Your task to perform on an android device: turn on bluetooth scan Image 0: 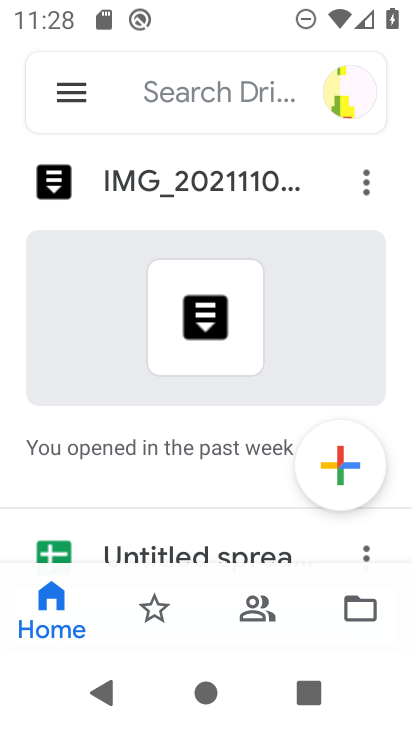
Step 0: press home button
Your task to perform on an android device: turn on bluetooth scan Image 1: 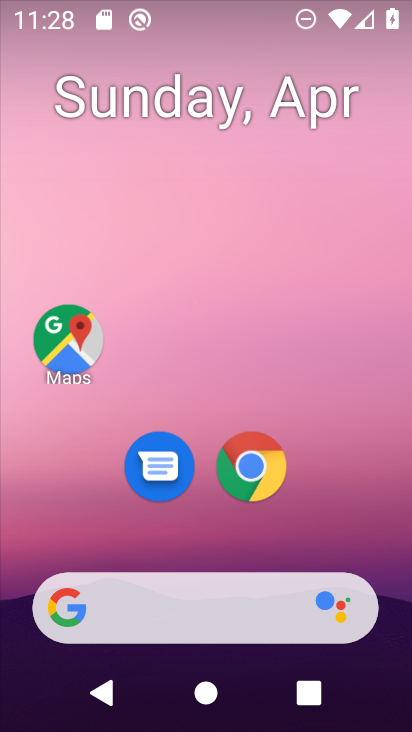
Step 1: drag from (375, 520) to (368, 79)
Your task to perform on an android device: turn on bluetooth scan Image 2: 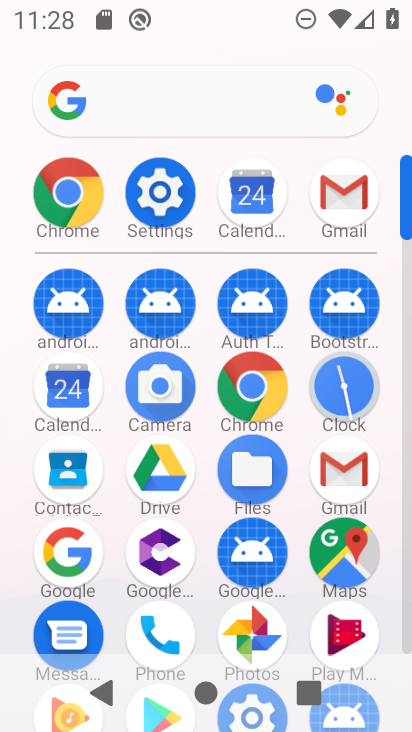
Step 2: click (171, 209)
Your task to perform on an android device: turn on bluetooth scan Image 3: 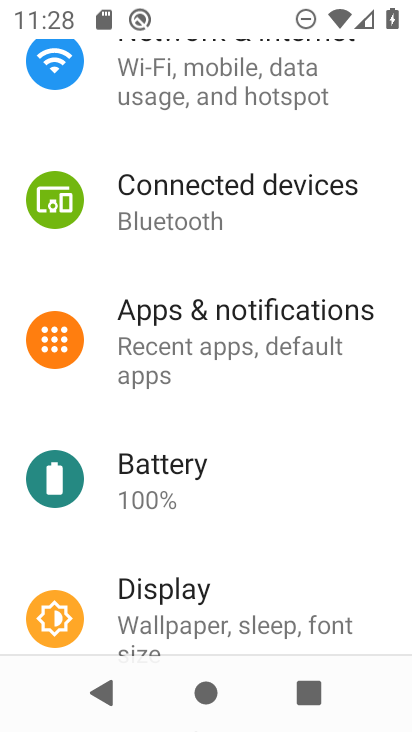
Step 3: drag from (391, 230) to (387, 381)
Your task to perform on an android device: turn on bluetooth scan Image 4: 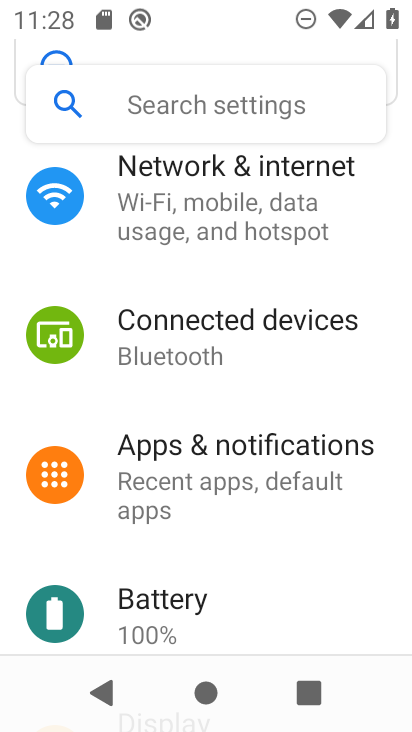
Step 4: drag from (370, 386) to (372, 260)
Your task to perform on an android device: turn on bluetooth scan Image 5: 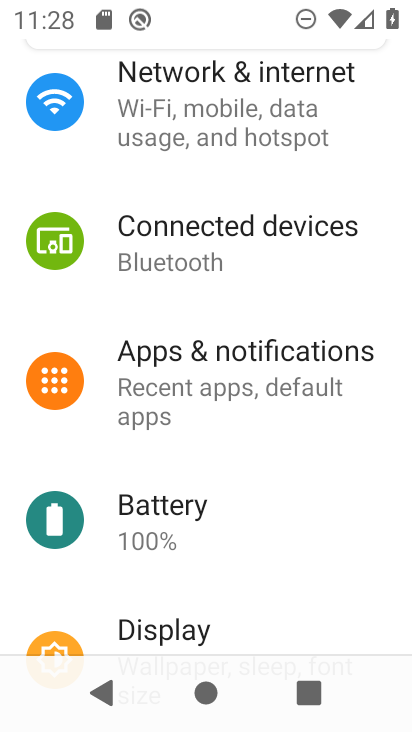
Step 5: drag from (350, 534) to (352, 360)
Your task to perform on an android device: turn on bluetooth scan Image 6: 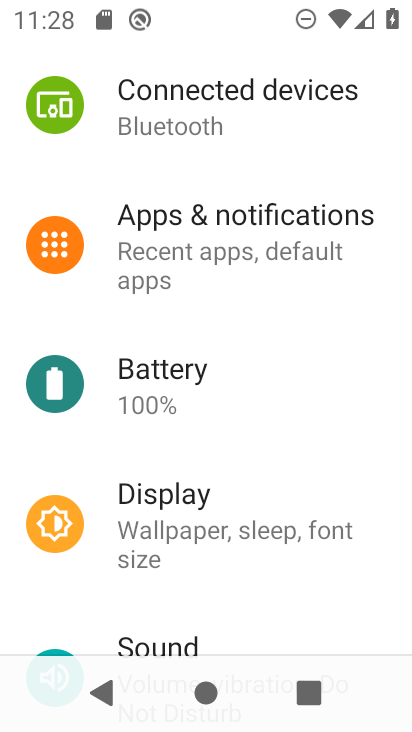
Step 6: drag from (363, 595) to (357, 399)
Your task to perform on an android device: turn on bluetooth scan Image 7: 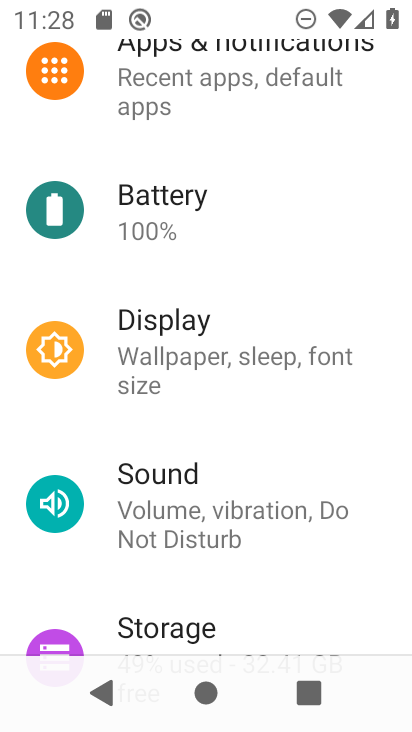
Step 7: drag from (353, 594) to (358, 429)
Your task to perform on an android device: turn on bluetooth scan Image 8: 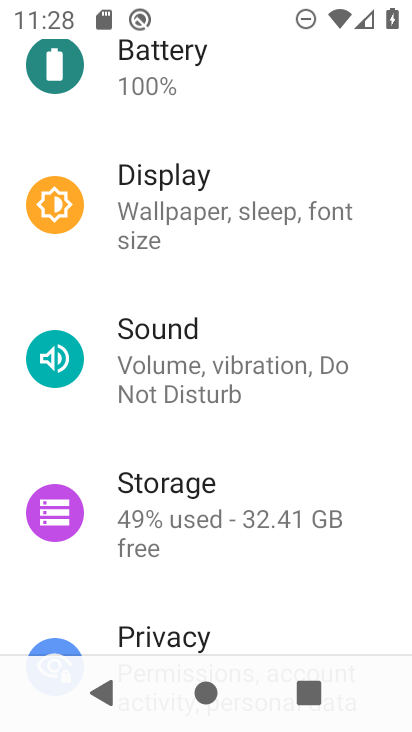
Step 8: drag from (350, 586) to (365, 389)
Your task to perform on an android device: turn on bluetooth scan Image 9: 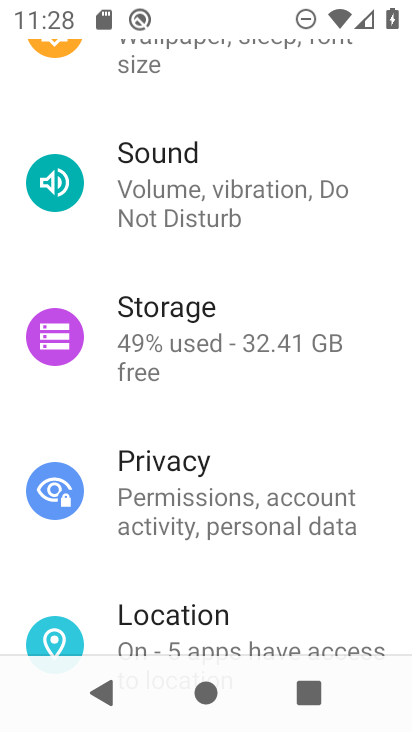
Step 9: drag from (346, 603) to (339, 373)
Your task to perform on an android device: turn on bluetooth scan Image 10: 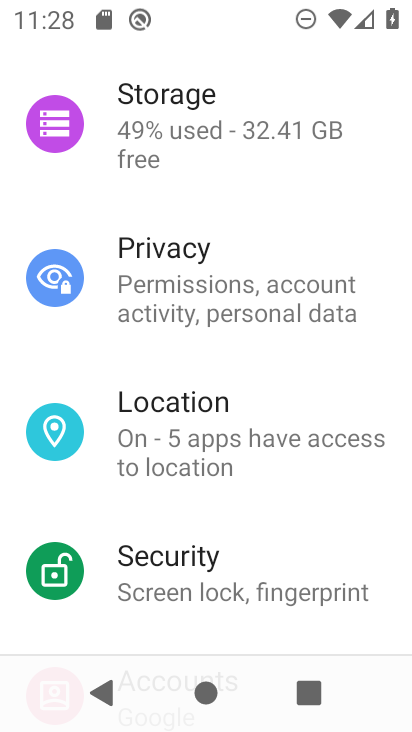
Step 10: click (210, 438)
Your task to perform on an android device: turn on bluetooth scan Image 11: 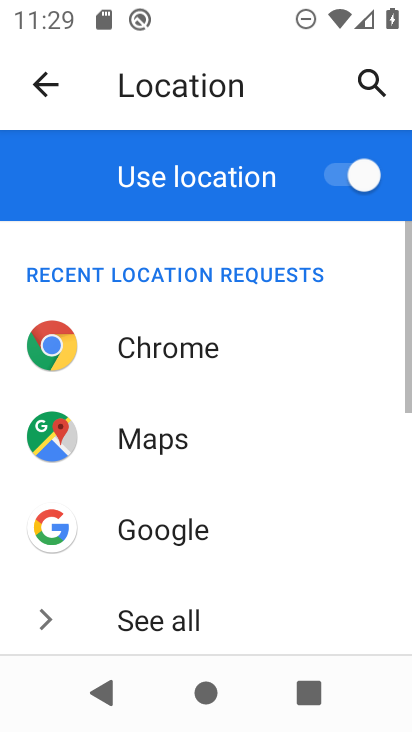
Step 11: drag from (324, 562) to (324, 322)
Your task to perform on an android device: turn on bluetooth scan Image 12: 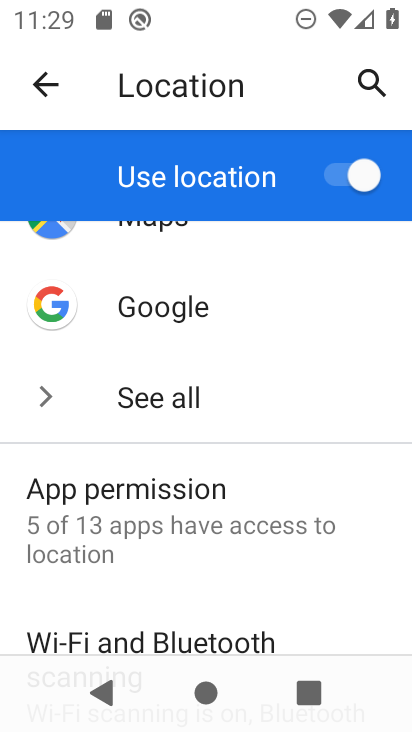
Step 12: drag from (345, 585) to (329, 330)
Your task to perform on an android device: turn on bluetooth scan Image 13: 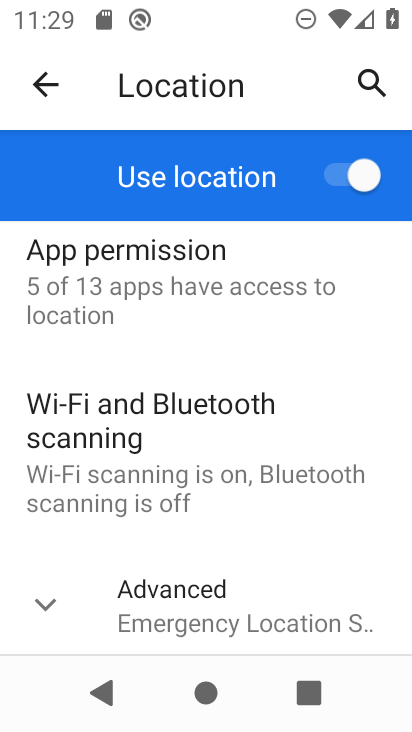
Step 13: click (290, 459)
Your task to perform on an android device: turn on bluetooth scan Image 14: 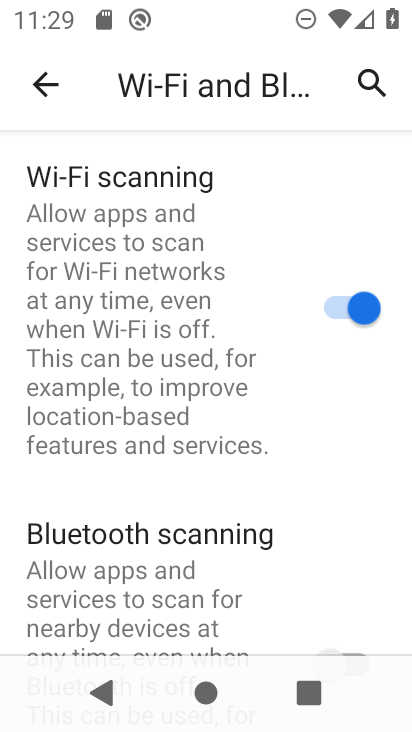
Step 14: drag from (311, 578) to (280, 250)
Your task to perform on an android device: turn on bluetooth scan Image 15: 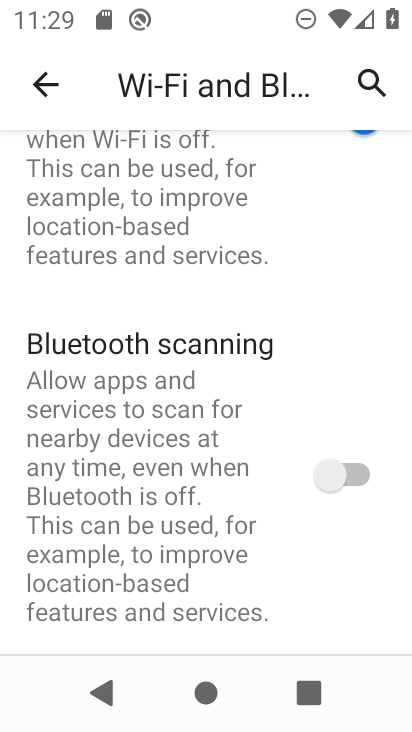
Step 15: click (314, 487)
Your task to perform on an android device: turn on bluetooth scan Image 16: 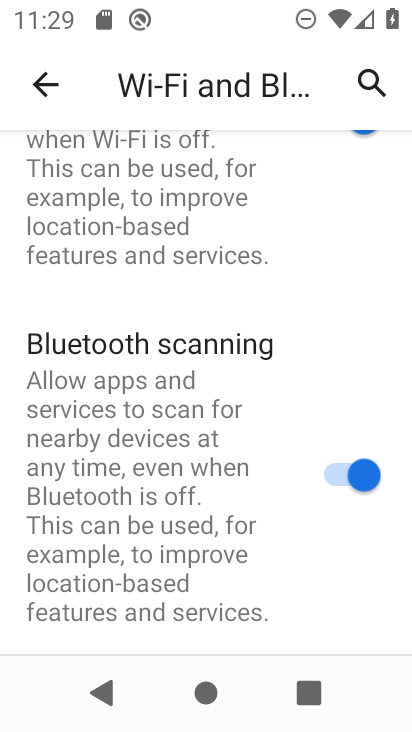
Step 16: task complete